Your task to perform on an android device: Open Android settings Image 0: 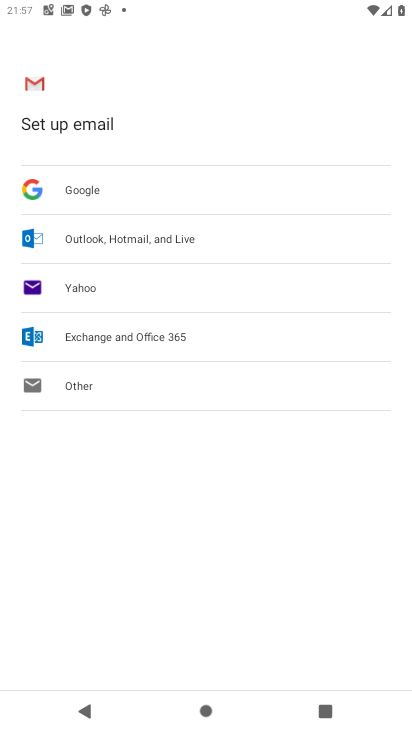
Step 0: press home button
Your task to perform on an android device: Open Android settings Image 1: 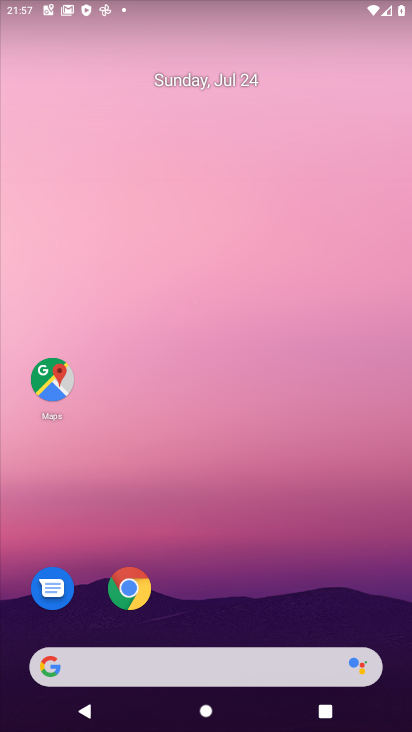
Step 1: drag from (181, 672) to (161, 43)
Your task to perform on an android device: Open Android settings Image 2: 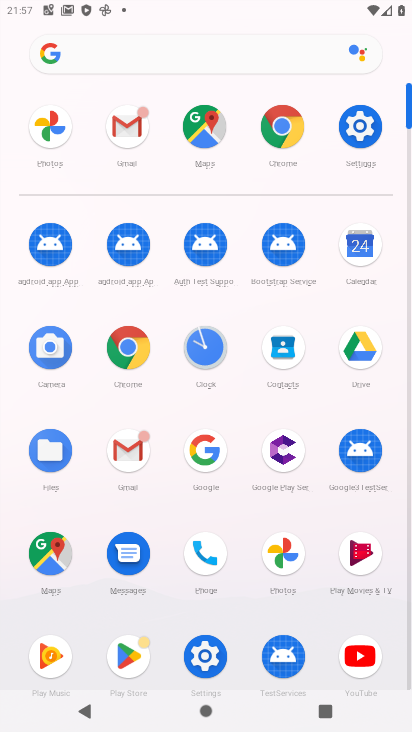
Step 2: click (191, 654)
Your task to perform on an android device: Open Android settings Image 3: 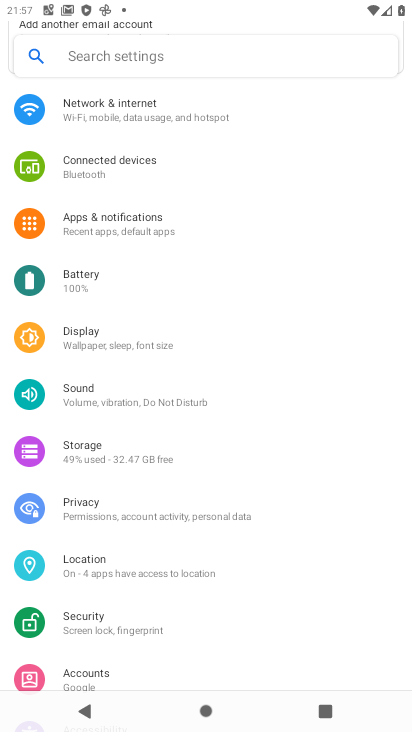
Step 3: task complete